Your task to perform on an android device: What is the recent news? Image 0: 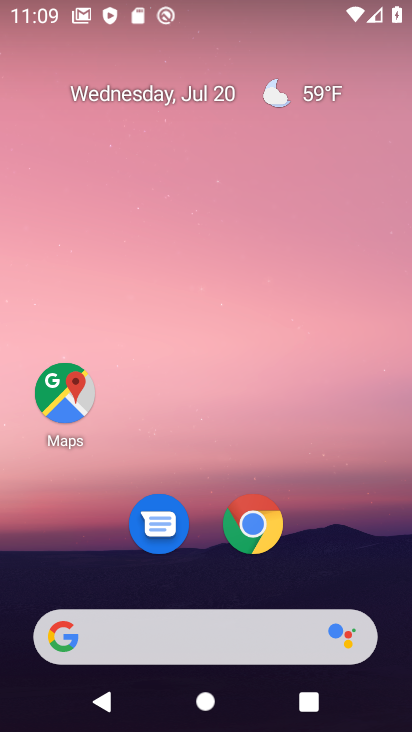
Step 0: click (144, 632)
Your task to perform on an android device: What is the recent news? Image 1: 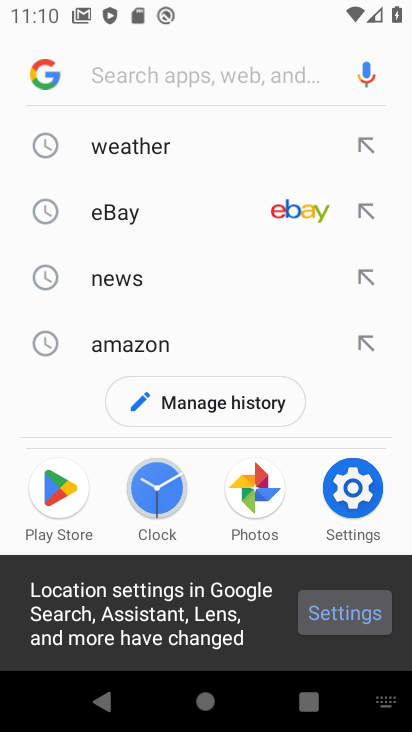
Step 1: click (136, 283)
Your task to perform on an android device: What is the recent news? Image 2: 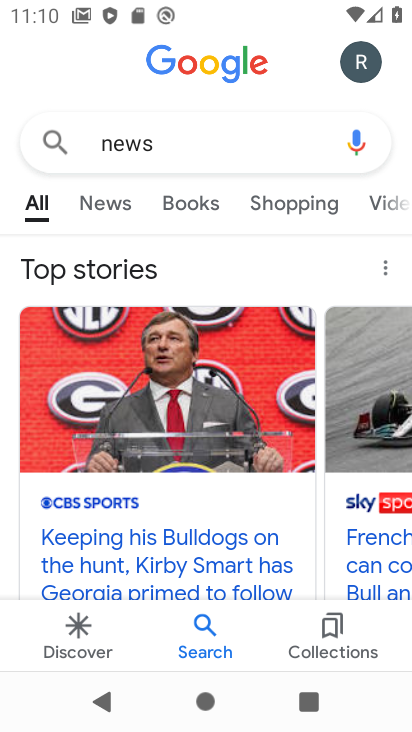
Step 2: click (95, 193)
Your task to perform on an android device: What is the recent news? Image 3: 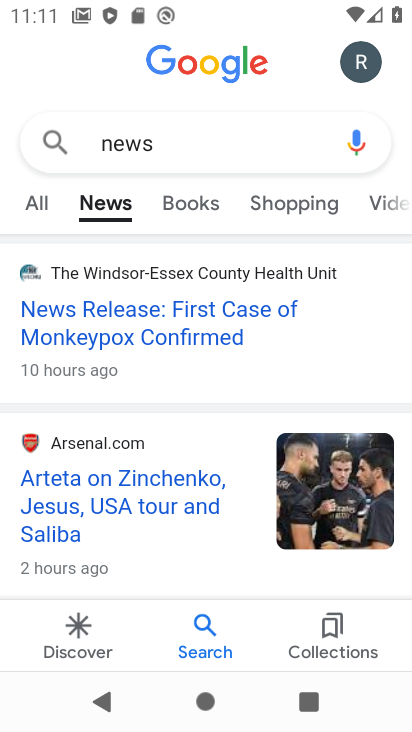
Step 3: task complete